Your task to perform on an android device: Open my contact list Image 0: 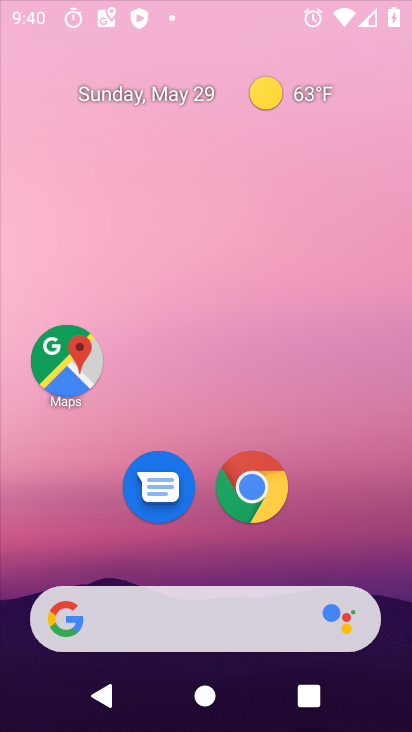
Step 0: drag from (143, 477) to (177, 20)
Your task to perform on an android device: Open my contact list Image 1: 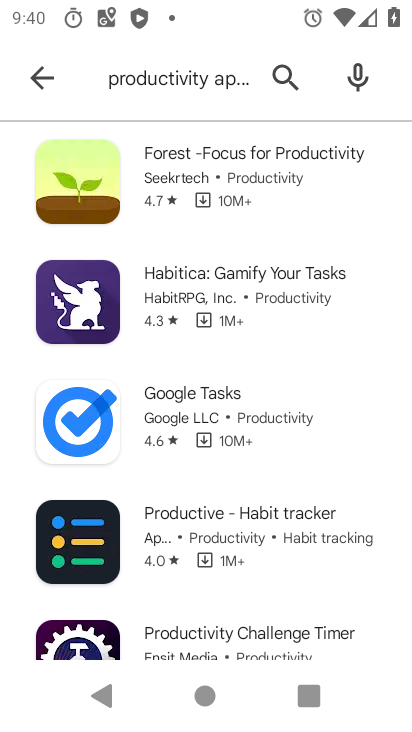
Step 1: press home button
Your task to perform on an android device: Open my contact list Image 2: 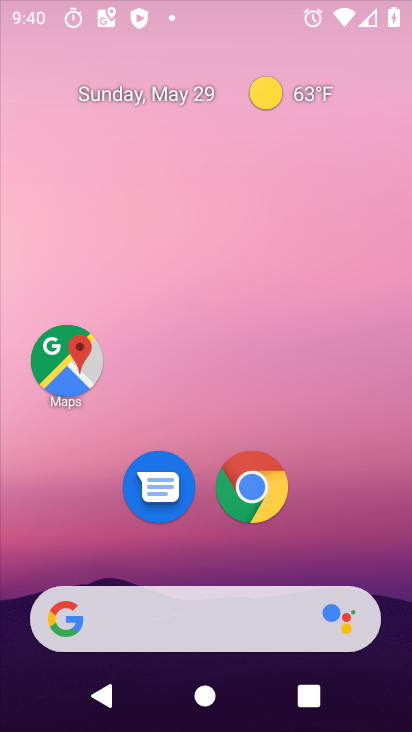
Step 2: drag from (239, 546) to (266, 96)
Your task to perform on an android device: Open my contact list Image 3: 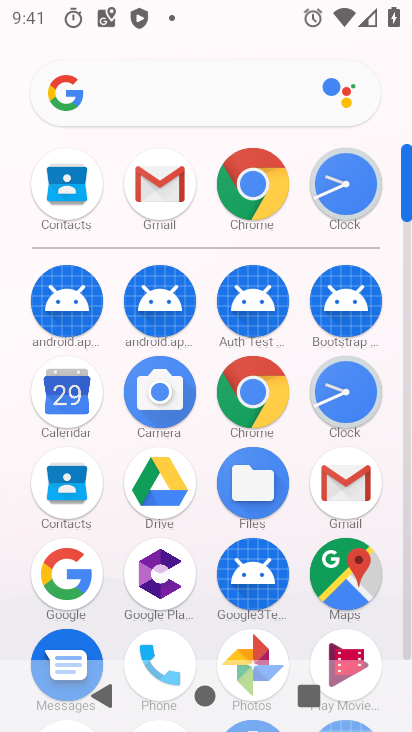
Step 3: click (74, 498)
Your task to perform on an android device: Open my contact list Image 4: 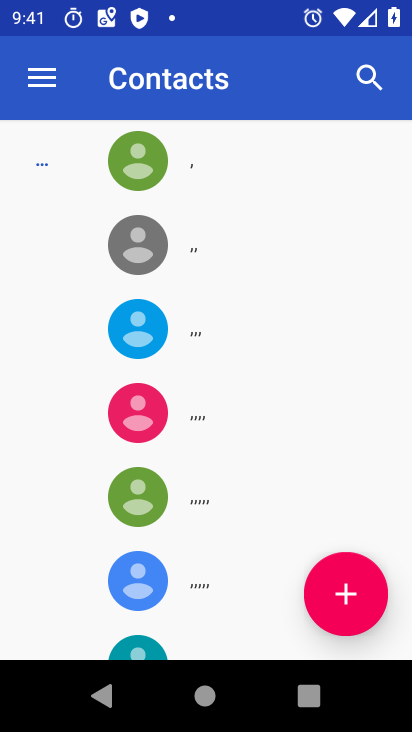
Step 4: task complete